Your task to perform on an android device: Open the map Image 0: 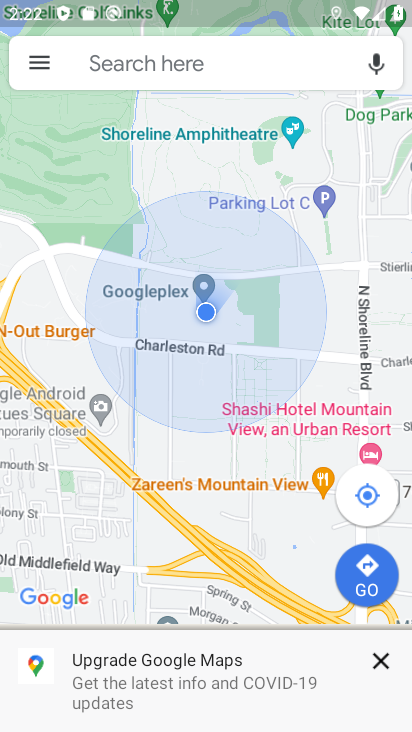
Step 0: task complete